Your task to perform on an android device: open app "Grab" (install if not already installed), go to login, and select forgot password Image 0: 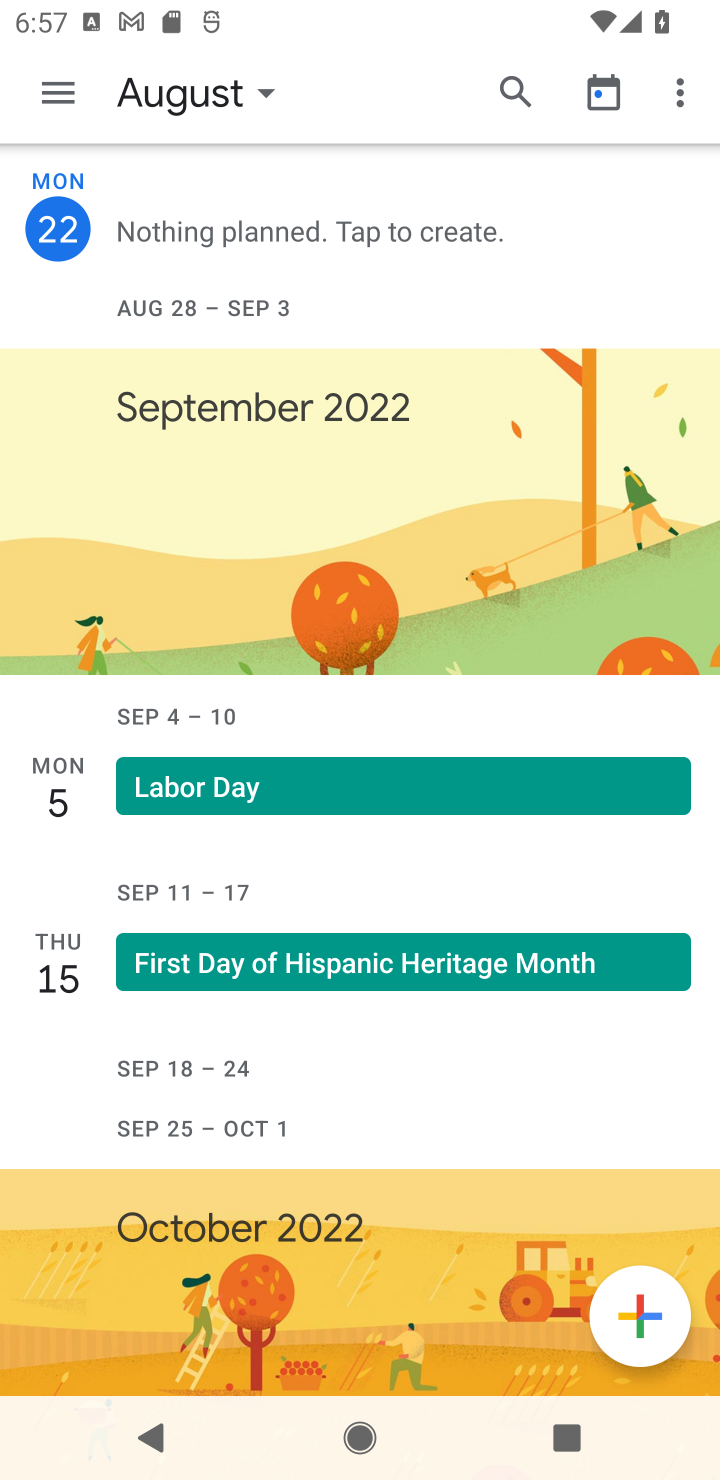
Step 0: press home button
Your task to perform on an android device: open app "Grab" (install if not already installed), go to login, and select forgot password Image 1: 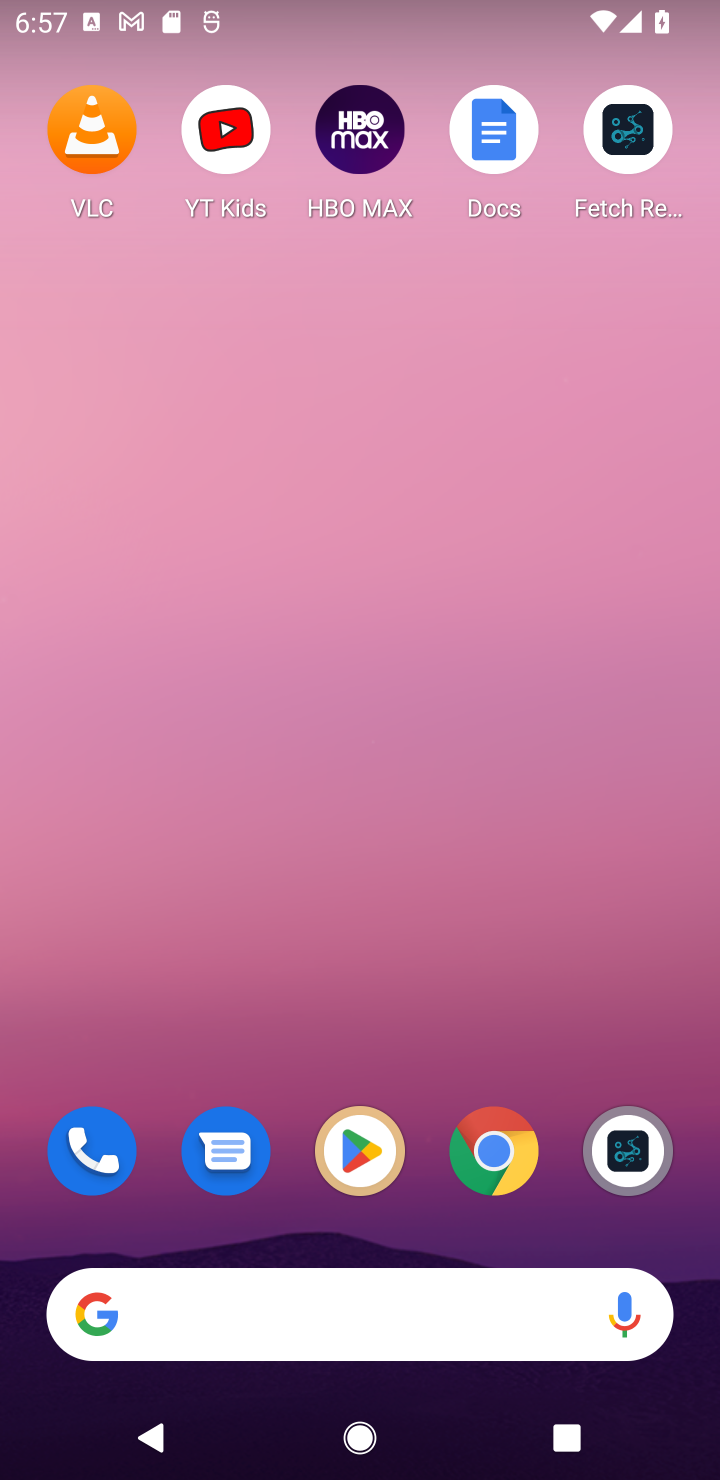
Step 1: click (343, 1159)
Your task to perform on an android device: open app "Grab" (install if not already installed), go to login, and select forgot password Image 2: 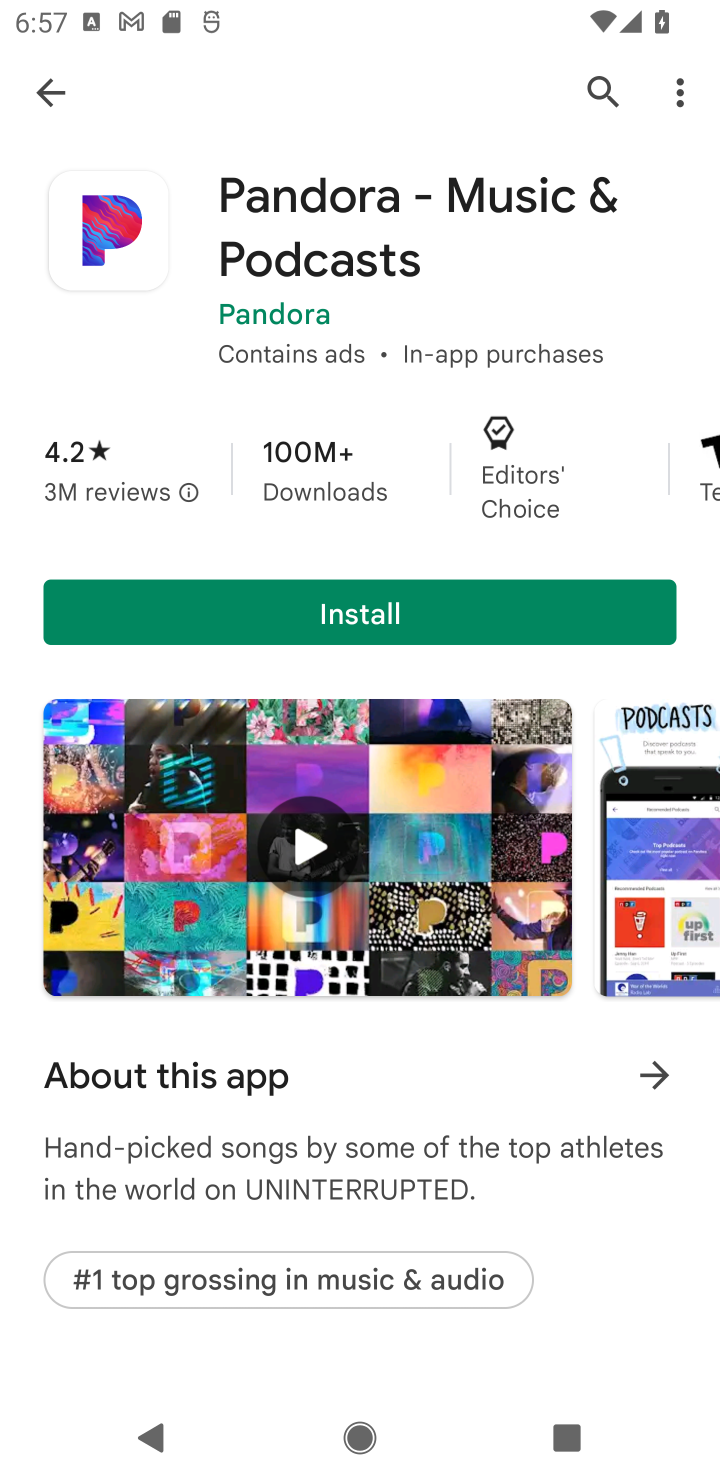
Step 2: click (591, 96)
Your task to perform on an android device: open app "Grab" (install if not already installed), go to login, and select forgot password Image 3: 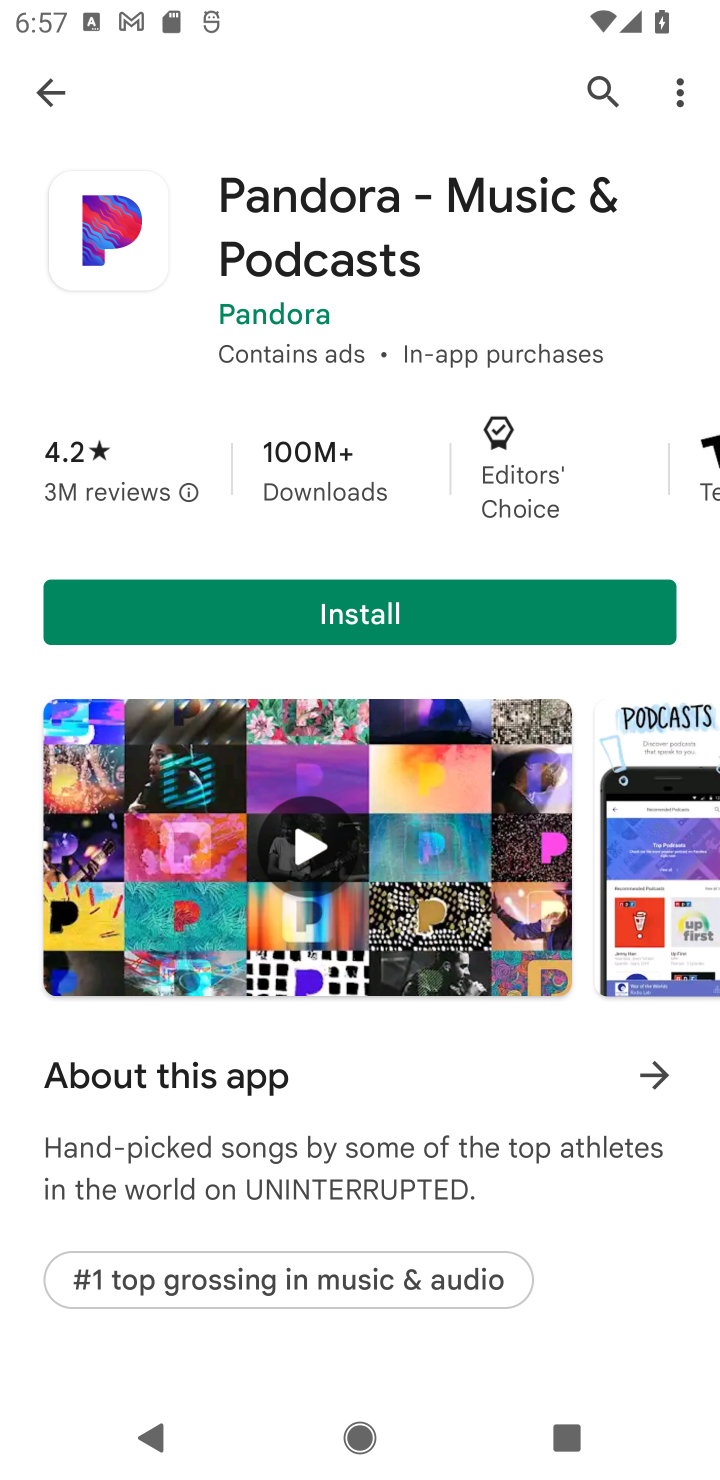
Step 3: click (600, 84)
Your task to perform on an android device: open app "Grab" (install if not already installed), go to login, and select forgot password Image 4: 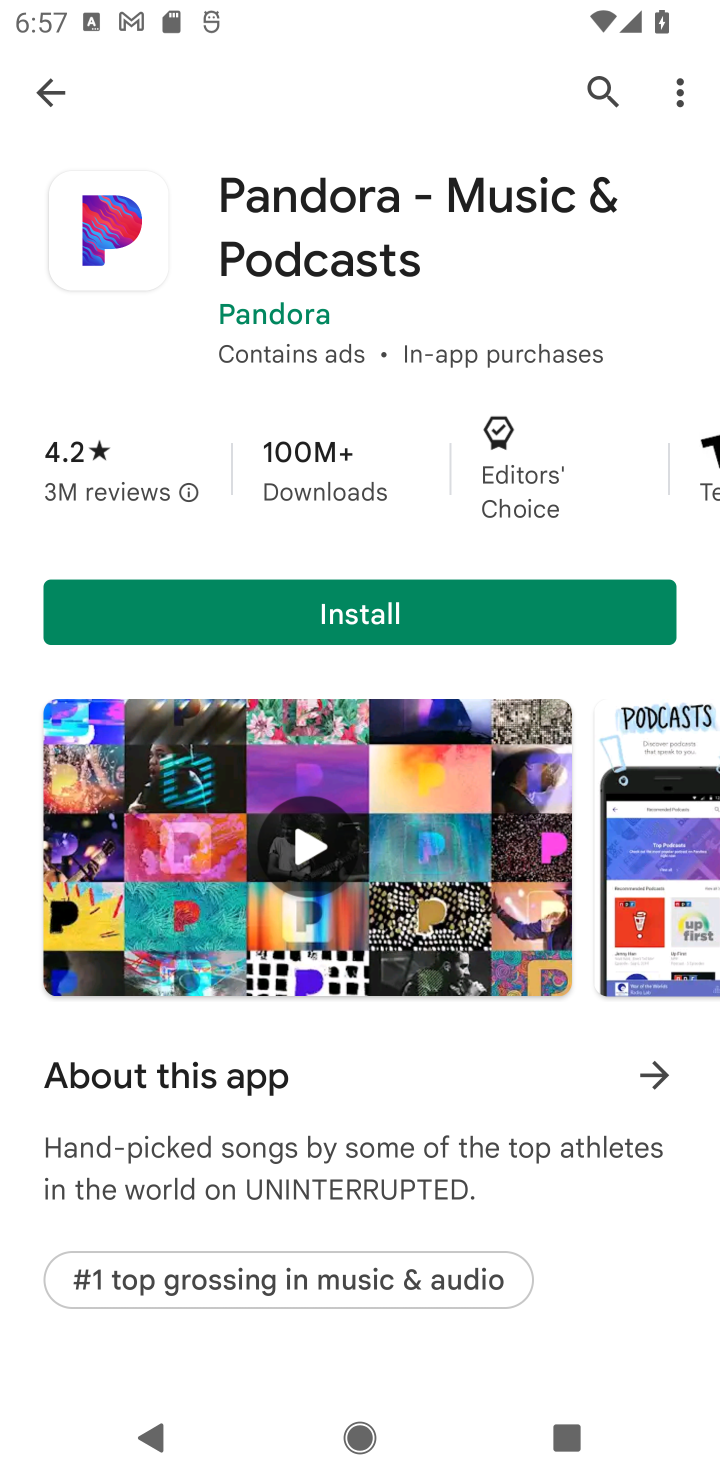
Step 4: click (588, 90)
Your task to perform on an android device: open app "Grab" (install if not already installed), go to login, and select forgot password Image 5: 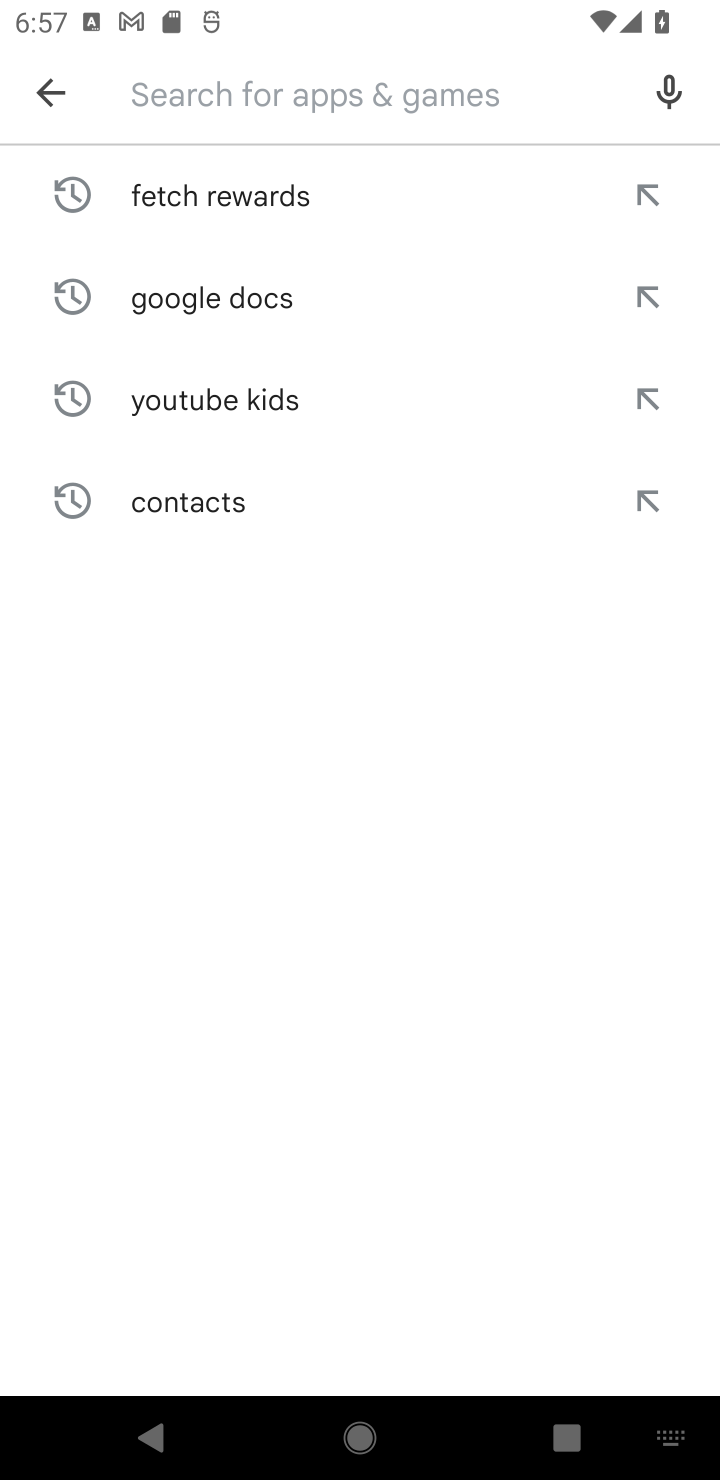
Step 5: type "Grab"
Your task to perform on an android device: open app "Grab" (install if not already installed), go to login, and select forgot password Image 6: 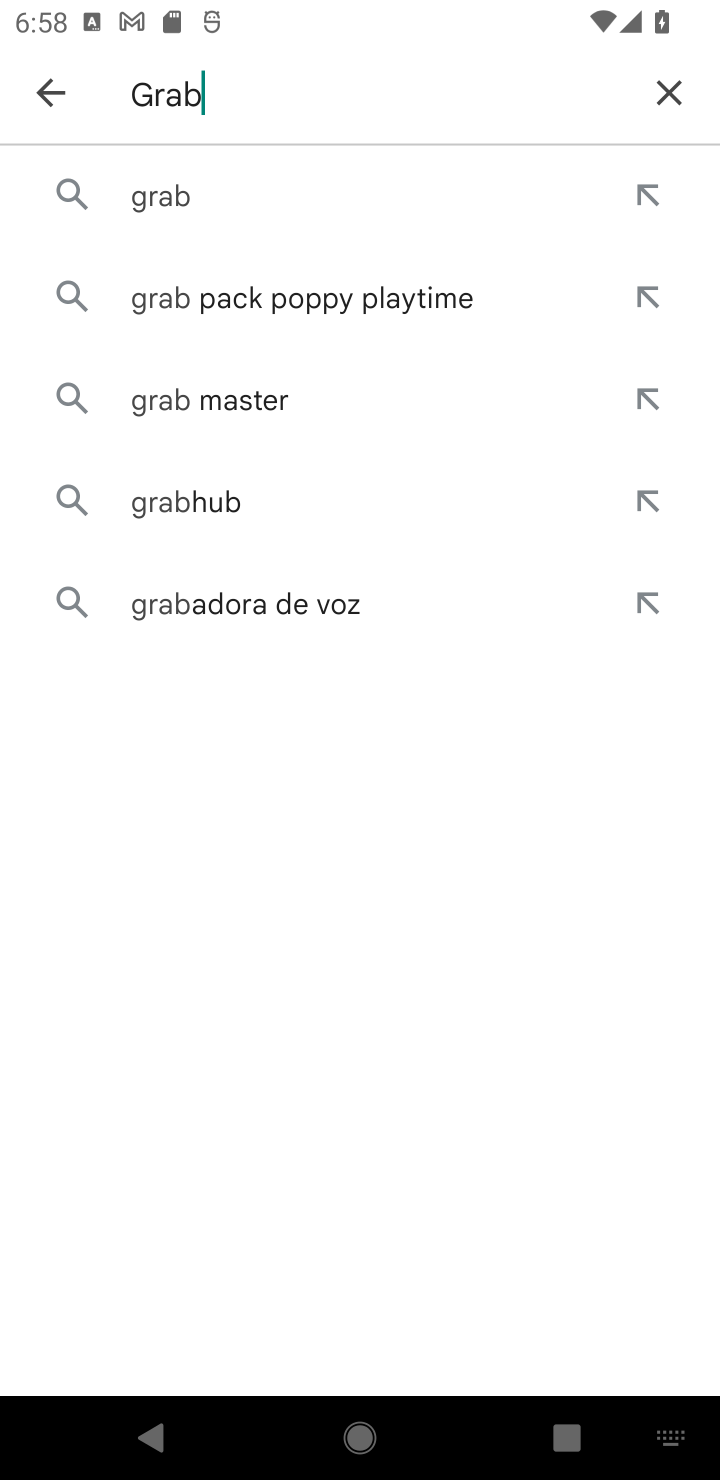
Step 6: click (149, 195)
Your task to perform on an android device: open app "Grab" (install if not already installed), go to login, and select forgot password Image 7: 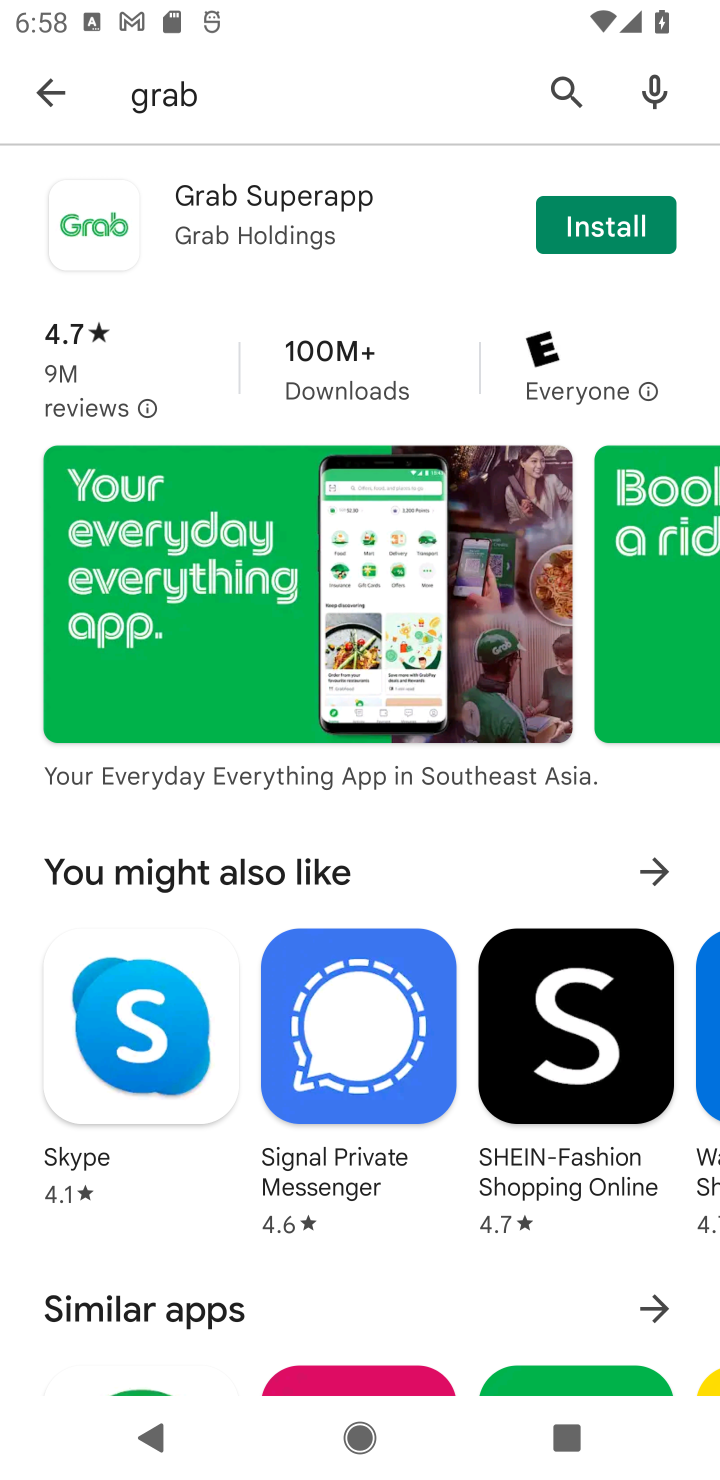
Step 7: click (614, 228)
Your task to perform on an android device: open app "Grab" (install if not already installed), go to login, and select forgot password Image 8: 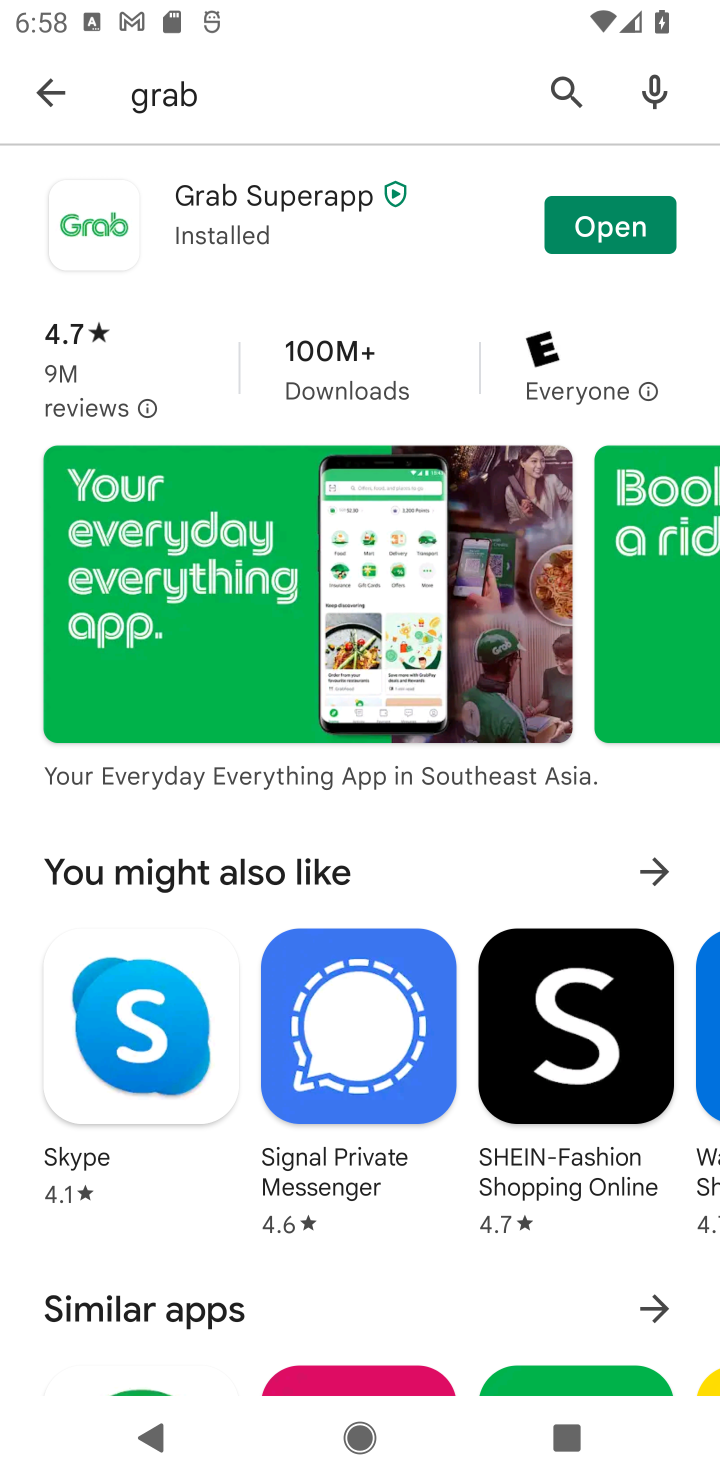
Step 8: click (604, 231)
Your task to perform on an android device: open app "Grab" (install if not already installed), go to login, and select forgot password Image 9: 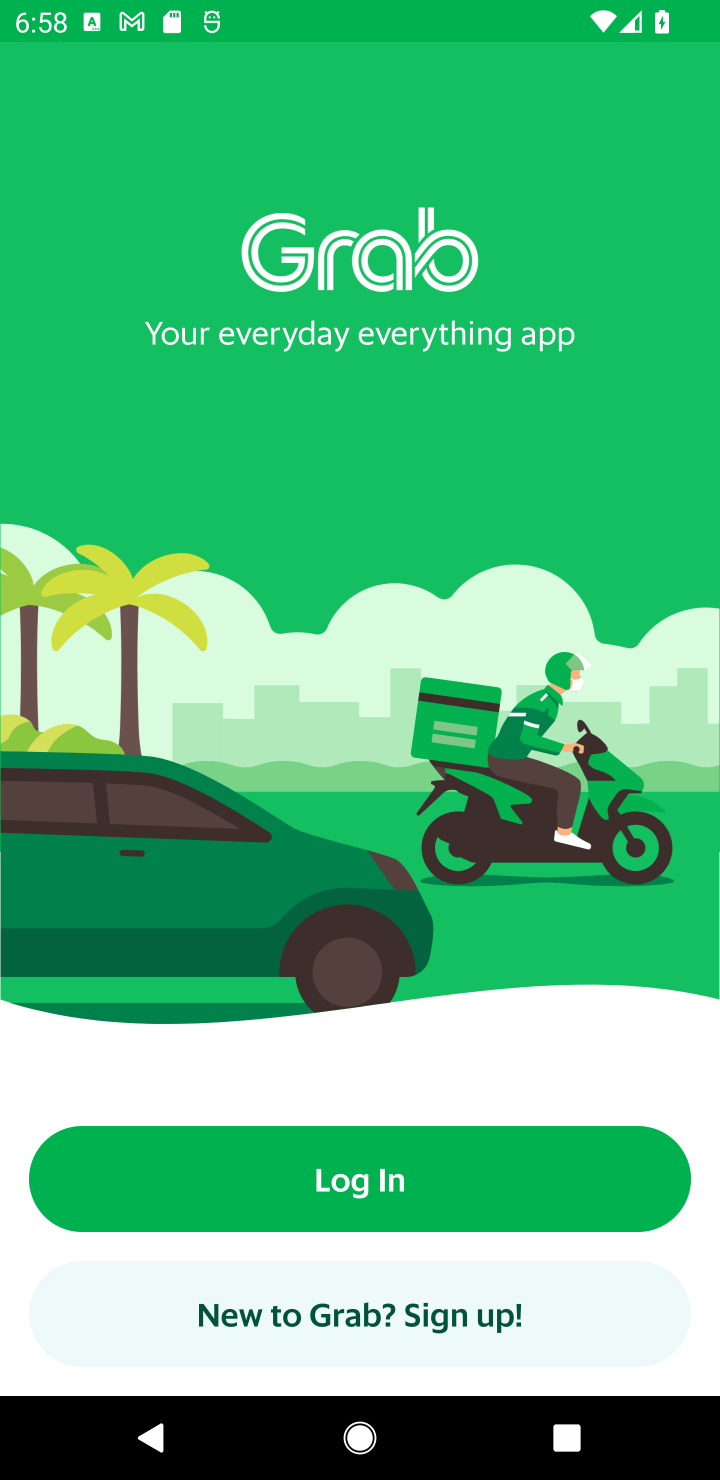
Step 9: click (477, 1201)
Your task to perform on an android device: open app "Grab" (install if not already installed), go to login, and select forgot password Image 10: 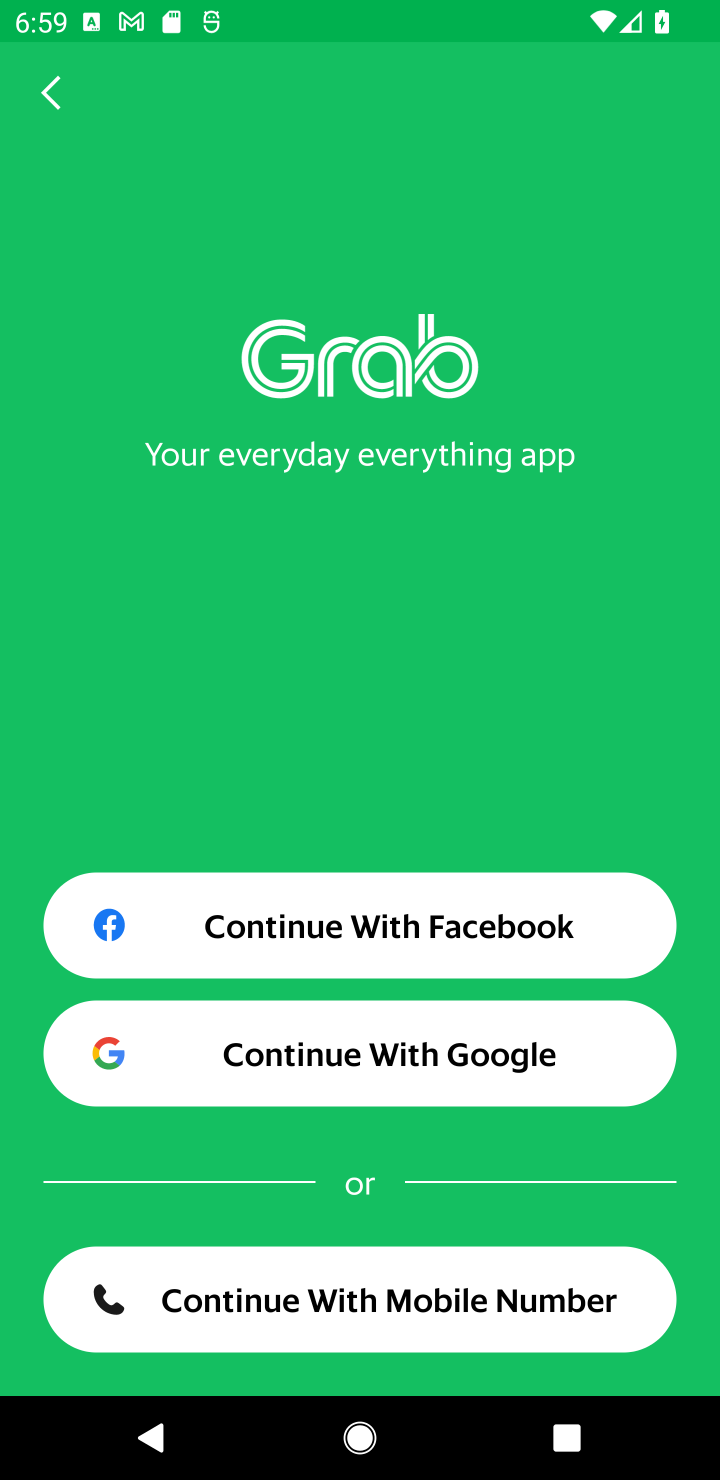
Step 10: task complete